Your task to perform on an android device: toggle notification dots Image 0: 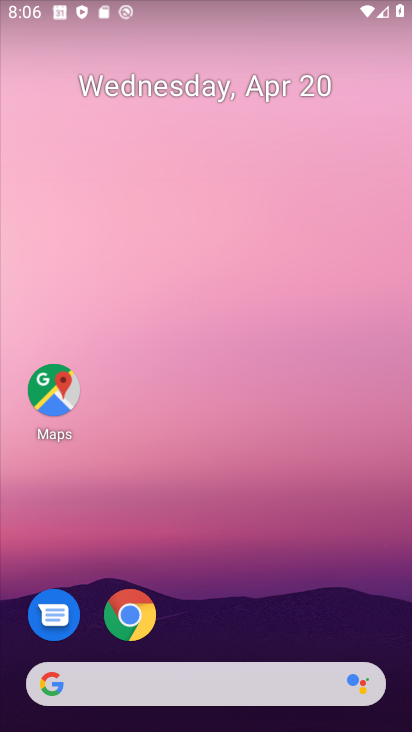
Step 0: drag from (239, 608) to (339, 77)
Your task to perform on an android device: toggle notification dots Image 1: 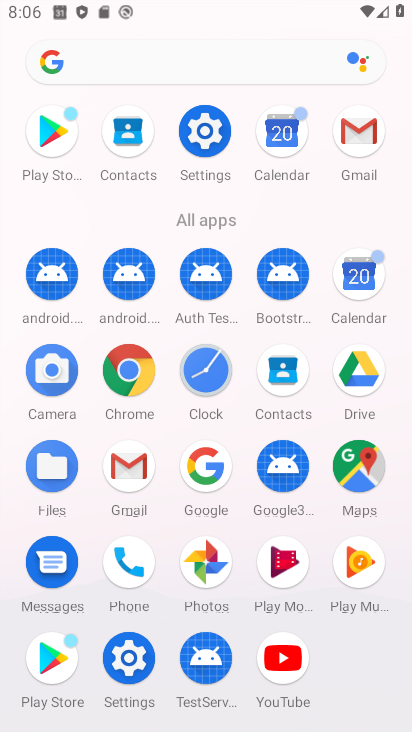
Step 1: click (207, 128)
Your task to perform on an android device: toggle notification dots Image 2: 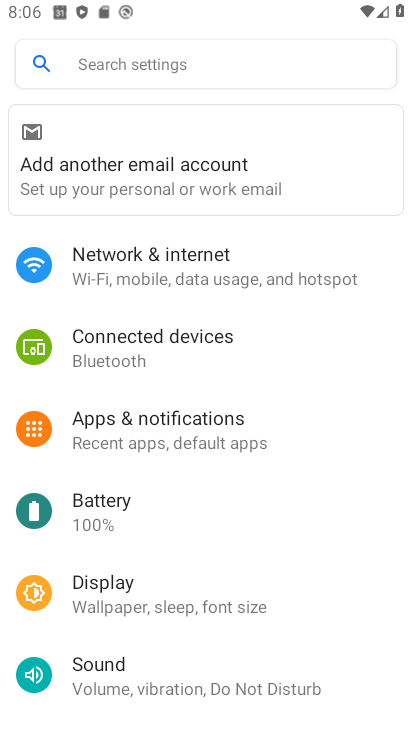
Step 2: click (200, 426)
Your task to perform on an android device: toggle notification dots Image 3: 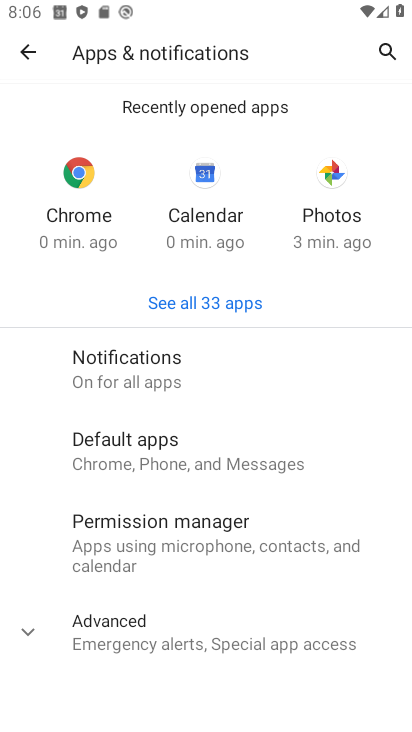
Step 3: click (141, 364)
Your task to perform on an android device: toggle notification dots Image 4: 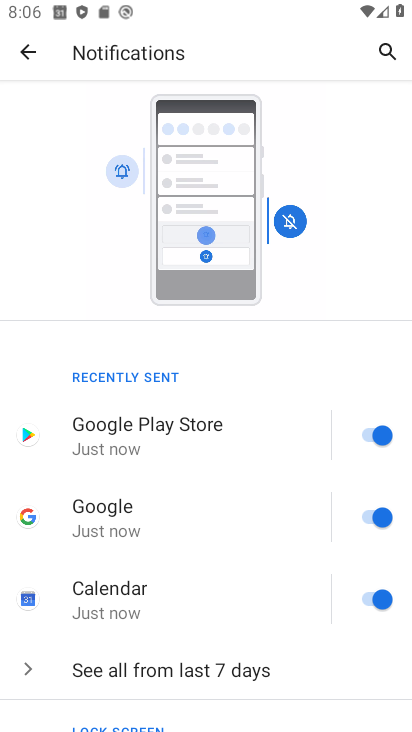
Step 4: drag from (197, 571) to (267, 359)
Your task to perform on an android device: toggle notification dots Image 5: 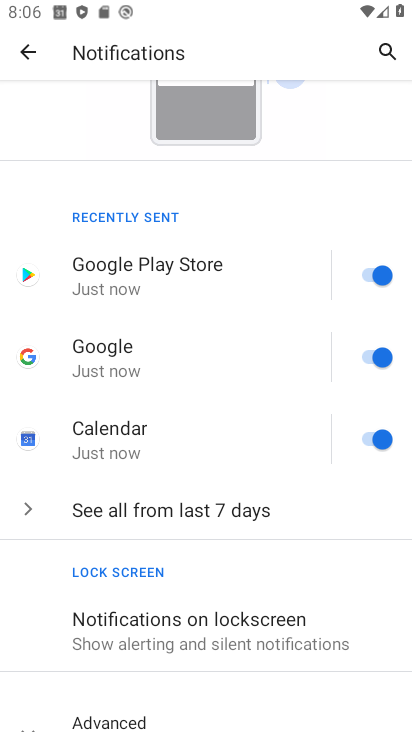
Step 5: drag from (198, 587) to (241, 388)
Your task to perform on an android device: toggle notification dots Image 6: 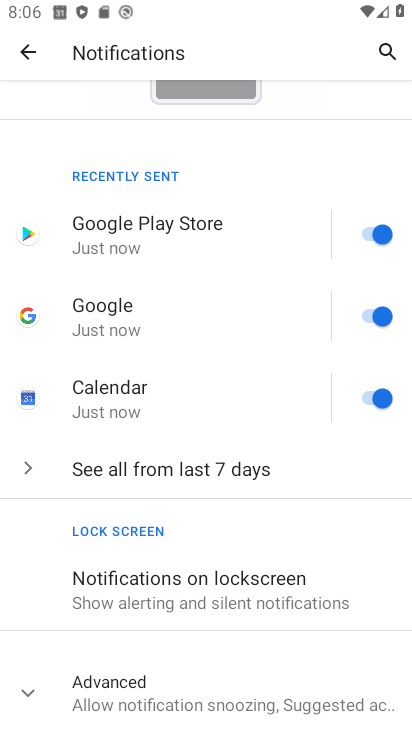
Step 6: click (192, 705)
Your task to perform on an android device: toggle notification dots Image 7: 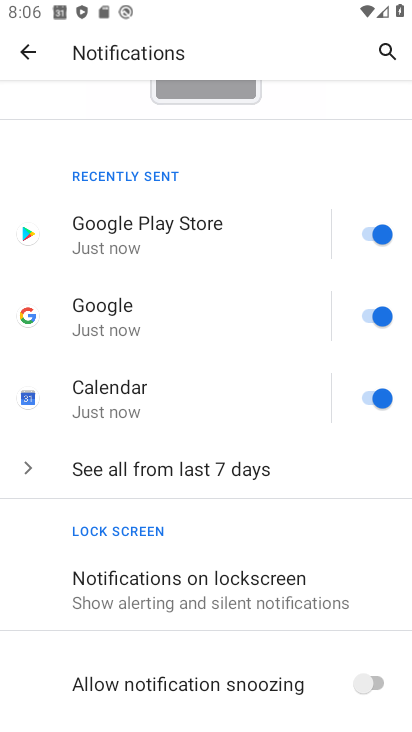
Step 7: drag from (209, 648) to (250, 482)
Your task to perform on an android device: toggle notification dots Image 8: 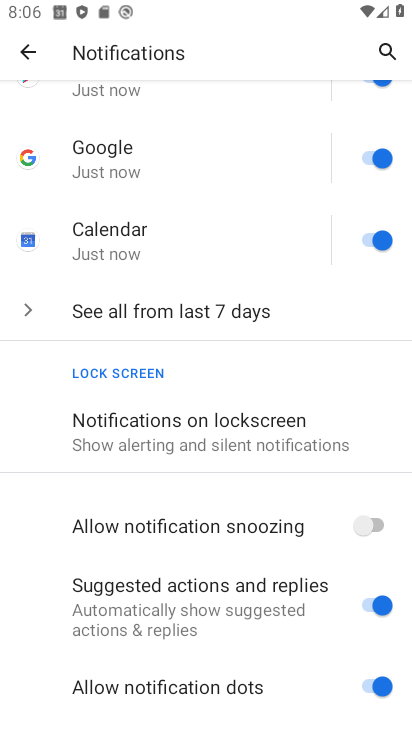
Step 8: drag from (200, 656) to (248, 484)
Your task to perform on an android device: toggle notification dots Image 9: 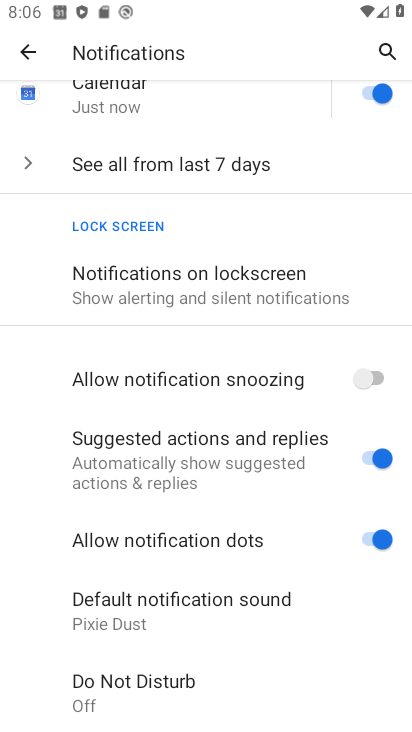
Step 9: click (376, 534)
Your task to perform on an android device: toggle notification dots Image 10: 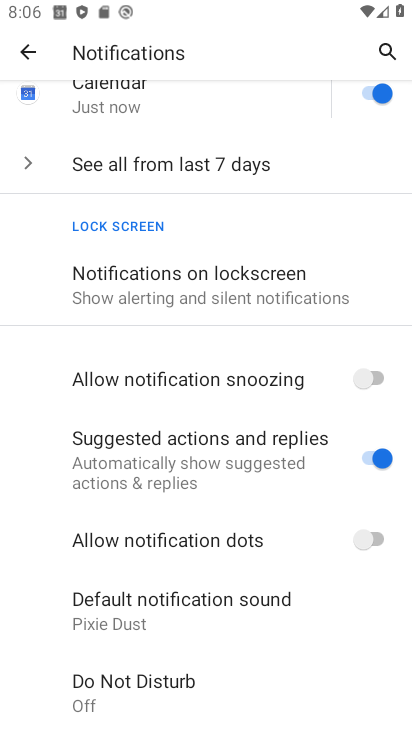
Step 10: task complete